Your task to perform on an android device: Search for energizer triple a on ebay.com, select the first entry, and add it to the cart. Image 0: 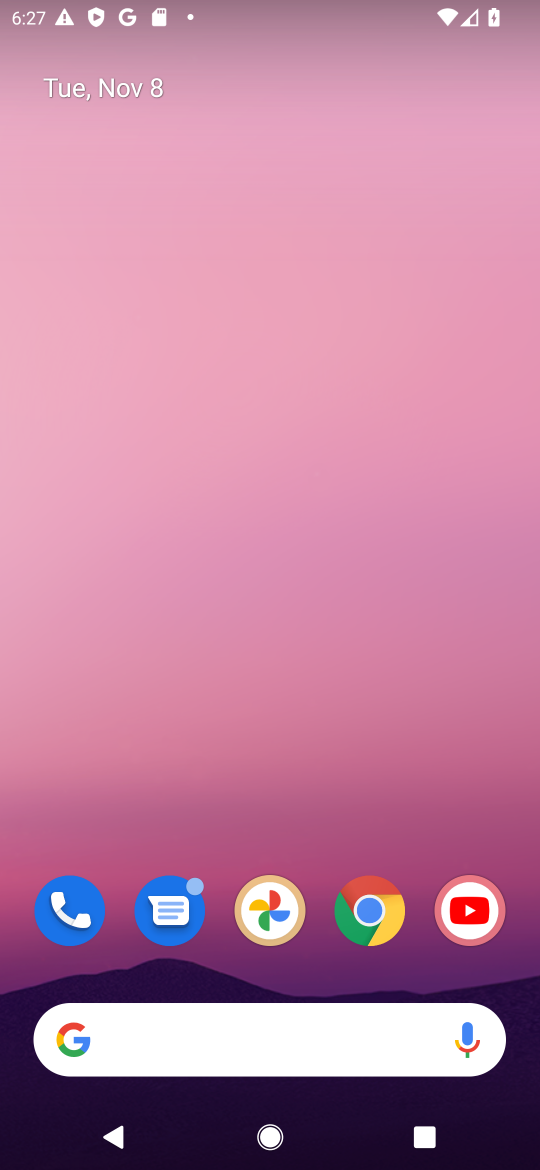
Step 0: click (379, 916)
Your task to perform on an android device: Search for energizer triple a on ebay.com, select the first entry, and add it to the cart. Image 1: 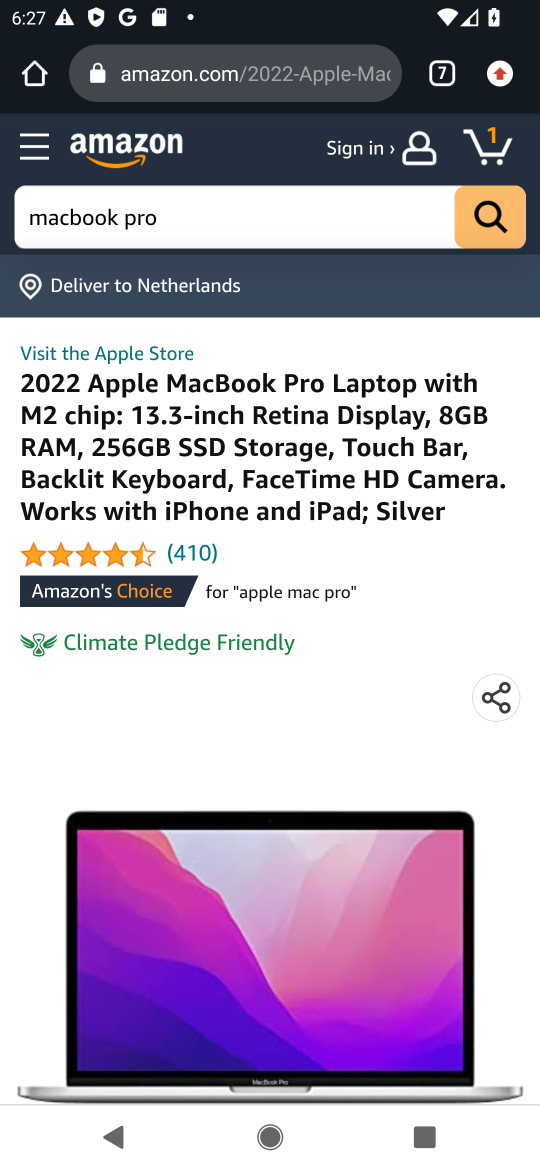
Step 1: click (451, 76)
Your task to perform on an android device: Search for energizer triple a on ebay.com, select the first entry, and add it to the cart. Image 2: 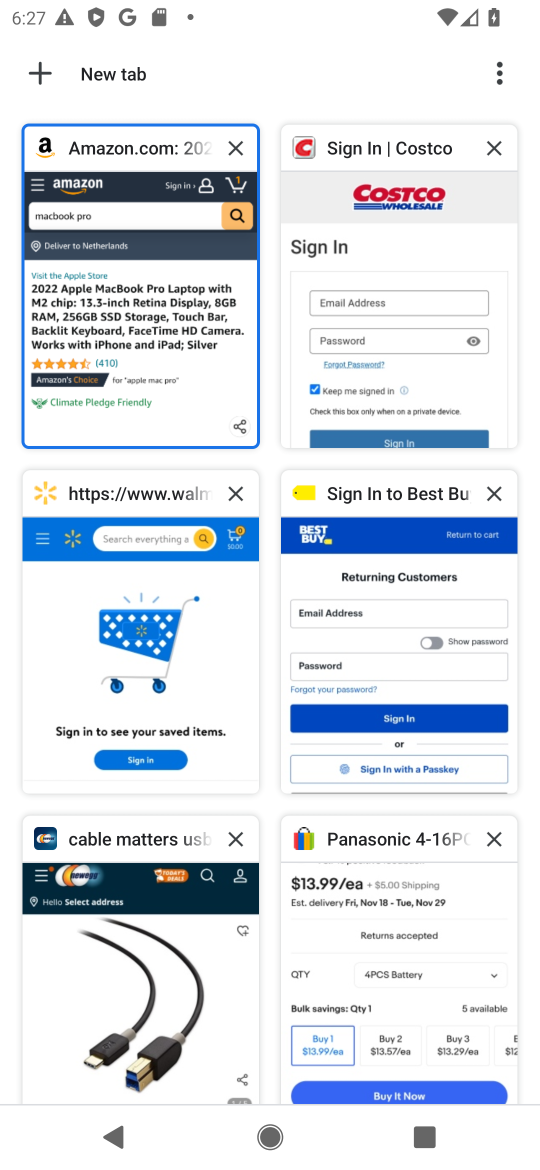
Step 2: click (389, 909)
Your task to perform on an android device: Search for energizer triple a on ebay.com, select the first entry, and add it to the cart. Image 3: 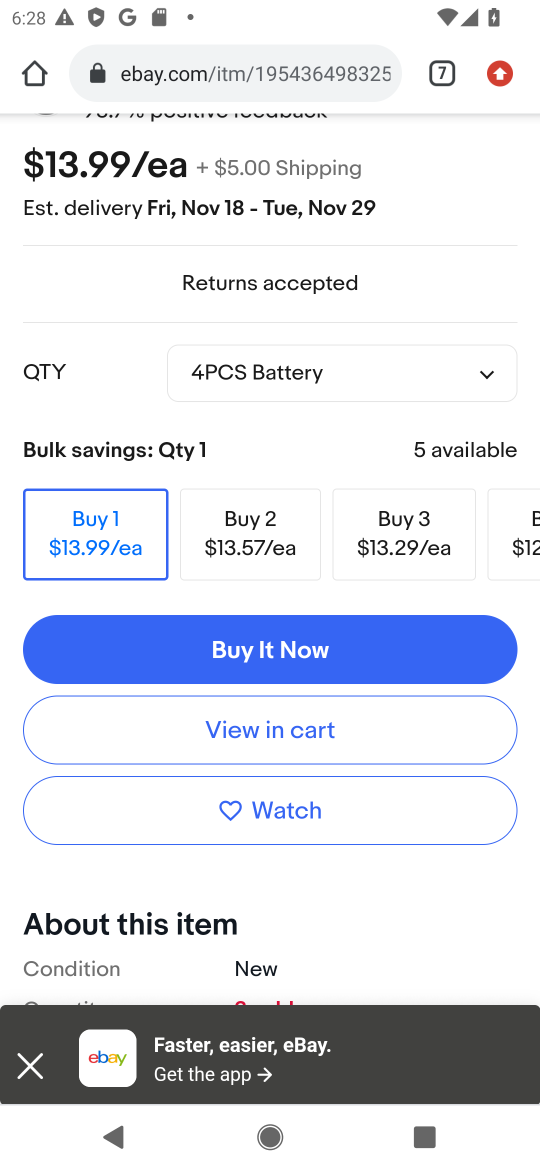
Step 3: drag from (321, 151) to (202, 960)
Your task to perform on an android device: Search for energizer triple a on ebay.com, select the first entry, and add it to the cart. Image 4: 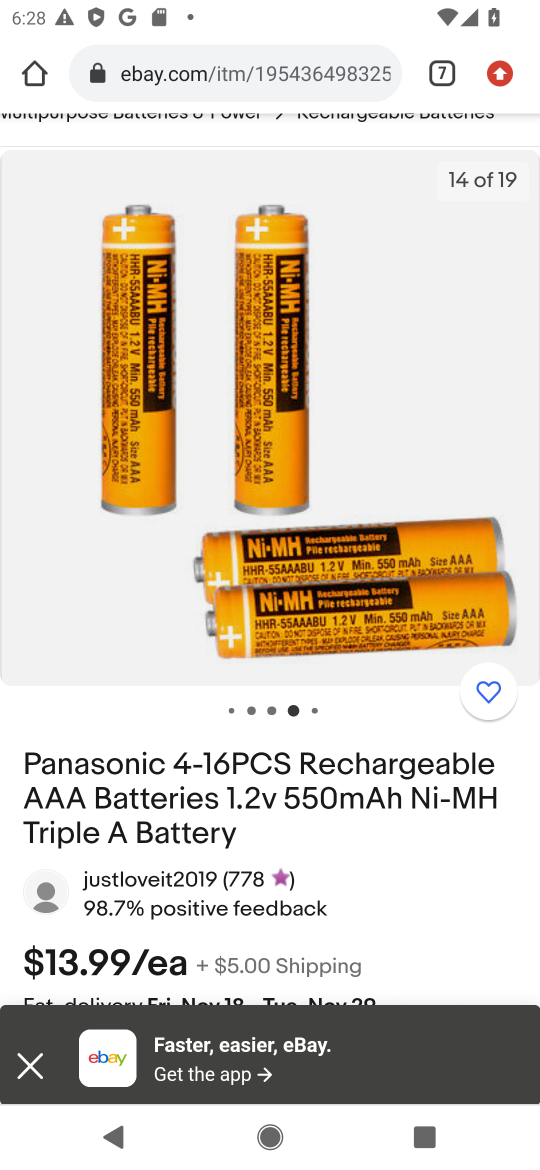
Step 4: drag from (427, 284) to (290, 766)
Your task to perform on an android device: Search for energizer triple a on ebay.com, select the first entry, and add it to the cart. Image 5: 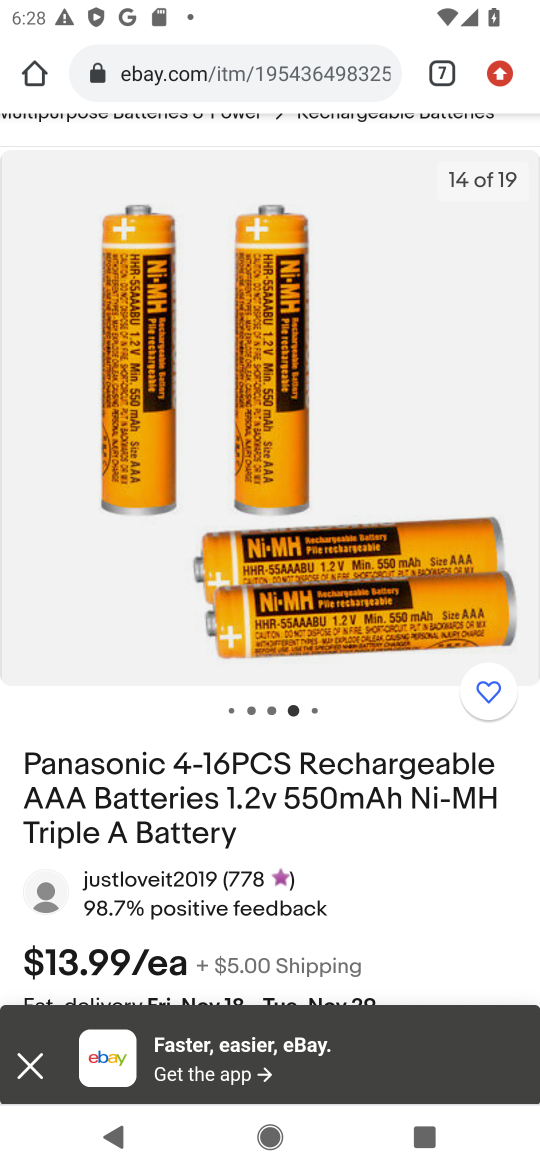
Step 5: drag from (301, 127) to (189, 602)
Your task to perform on an android device: Search for energizer triple a on ebay.com, select the first entry, and add it to the cart. Image 6: 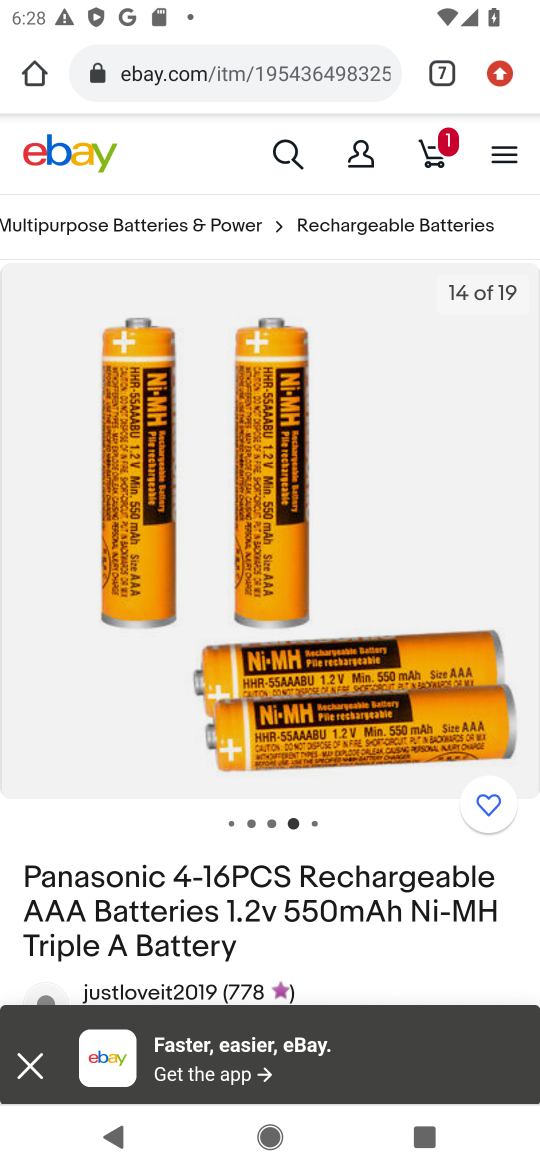
Step 6: click (288, 155)
Your task to perform on an android device: Search for energizer triple a on ebay.com, select the first entry, and add it to the cart. Image 7: 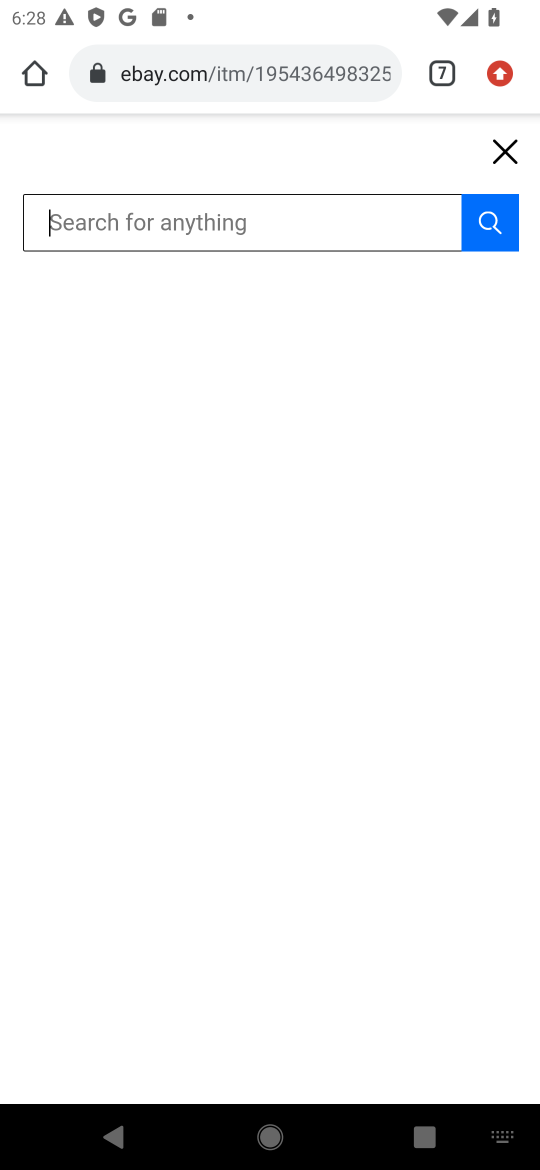
Step 7: type "energizer triple a battery"
Your task to perform on an android device: Search for energizer triple a on ebay.com, select the first entry, and add it to the cart. Image 8: 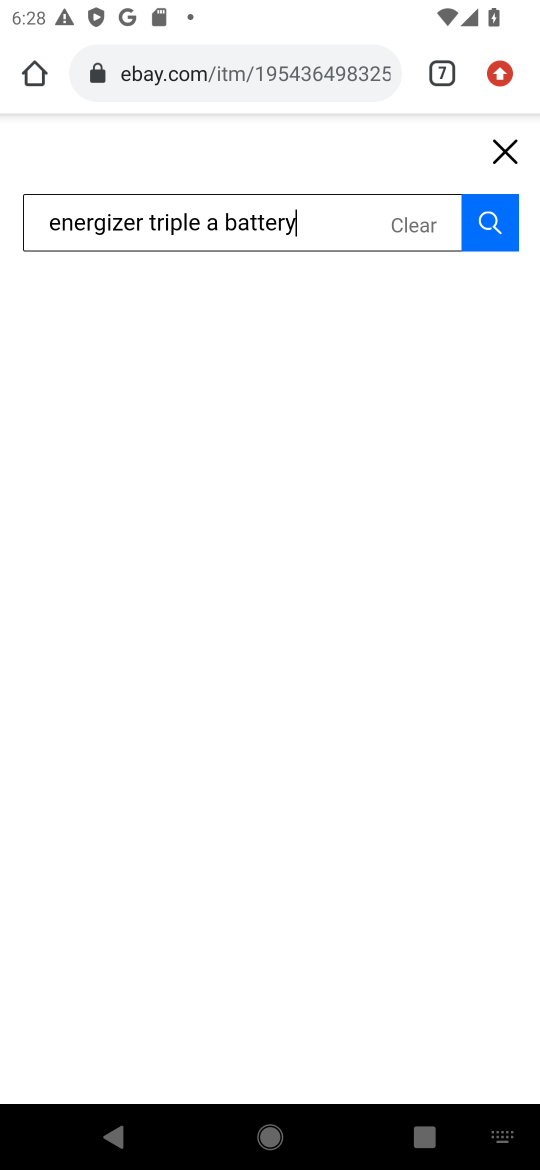
Step 8: click (494, 224)
Your task to perform on an android device: Search for energizer triple a on ebay.com, select the first entry, and add it to the cart. Image 9: 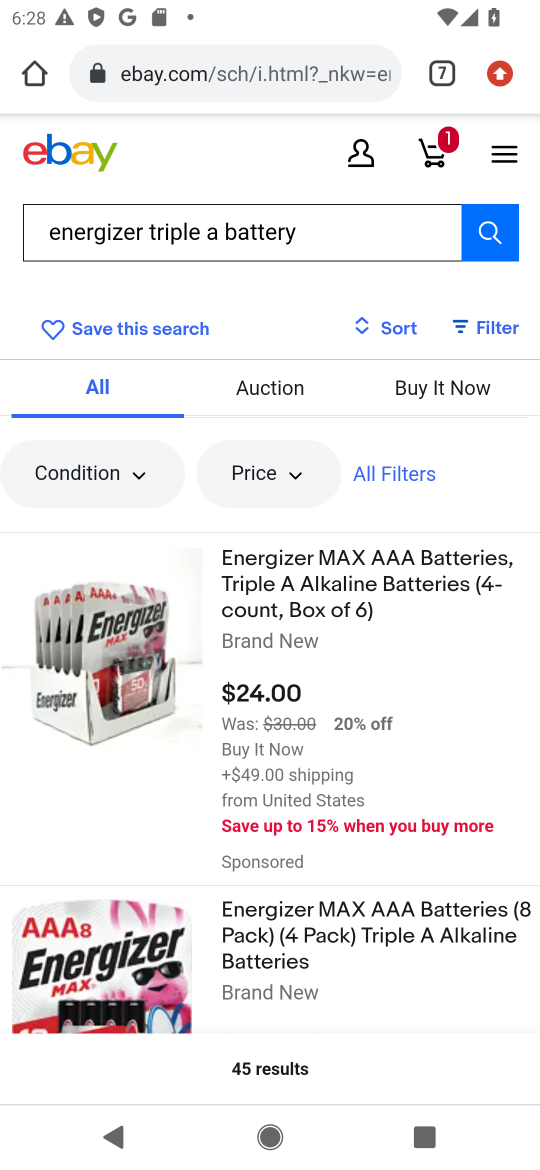
Step 9: click (250, 603)
Your task to perform on an android device: Search for energizer triple a on ebay.com, select the first entry, and add it to the cart. Image 10: 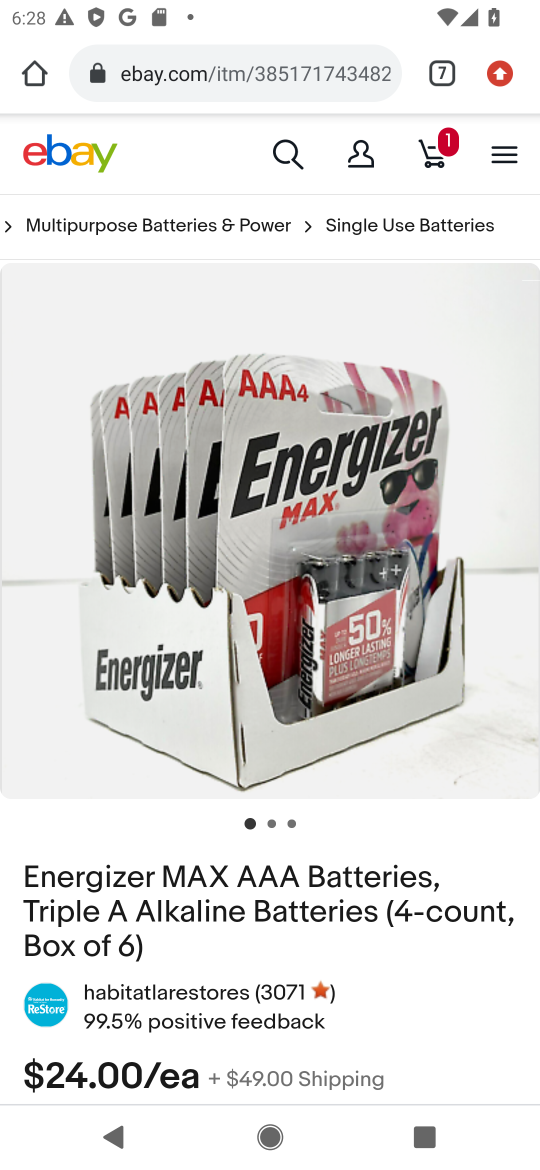
Step 10: drag from (250, 911) to (413, 340)
Your task to perform on an android device: Search for energizer triple a on ebay.com, select the first entry, and add it to the cart. Image 11: 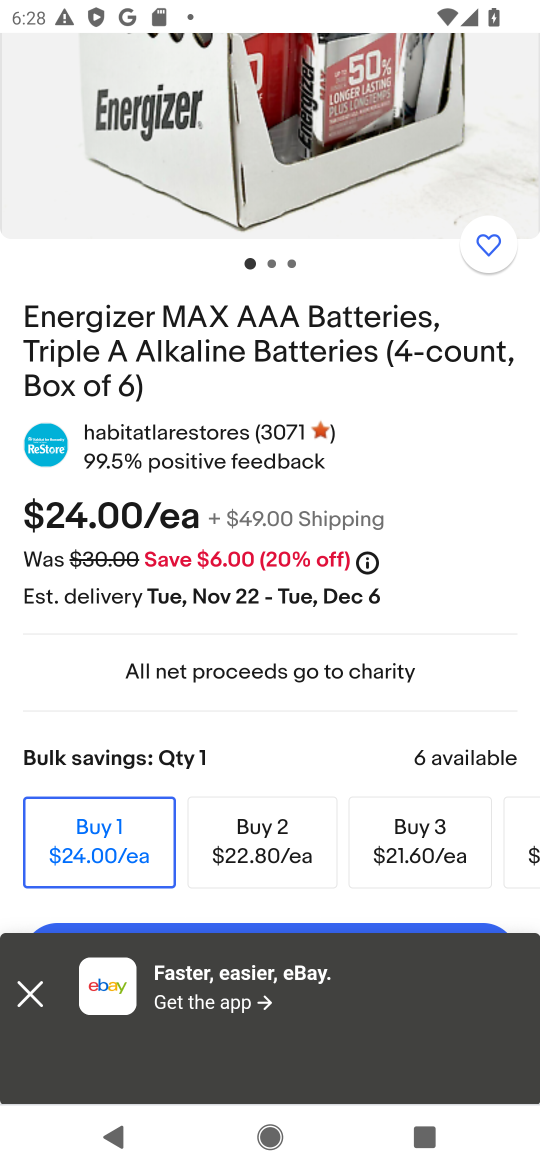
Step 11: drag from (320, 736) to (423, 308)
Your task to perform on an android device: Search for energizer triple a on ebay.com, select the first entry, and add it to the cart. Image 12: 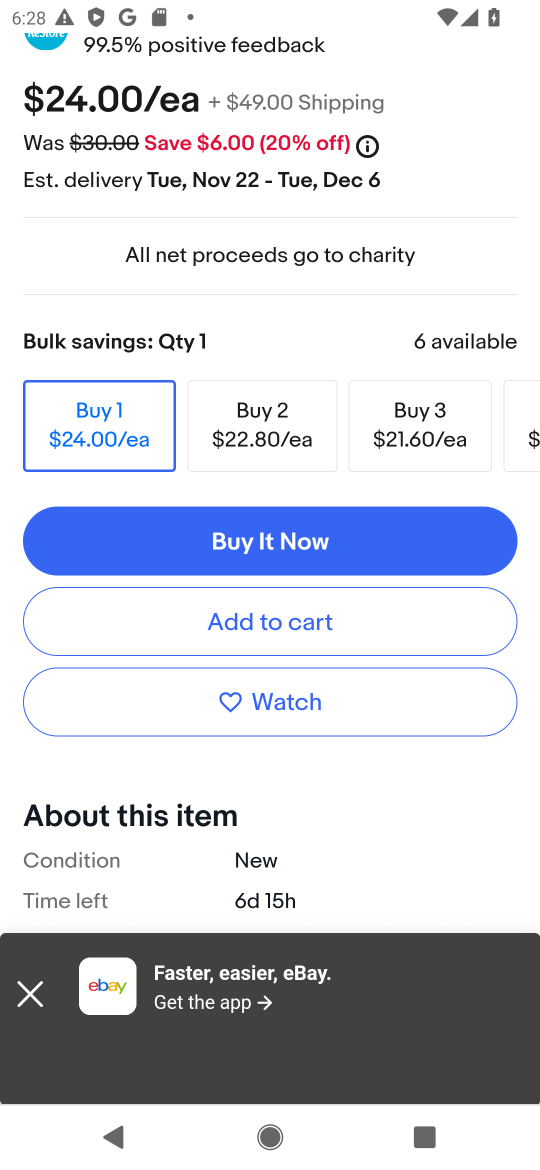
Step 12: click (267, 628)
Your task to perform on an android device: Search for energizer triple a on ebay.com, select the first entry, and add it to the cart. Image 13: 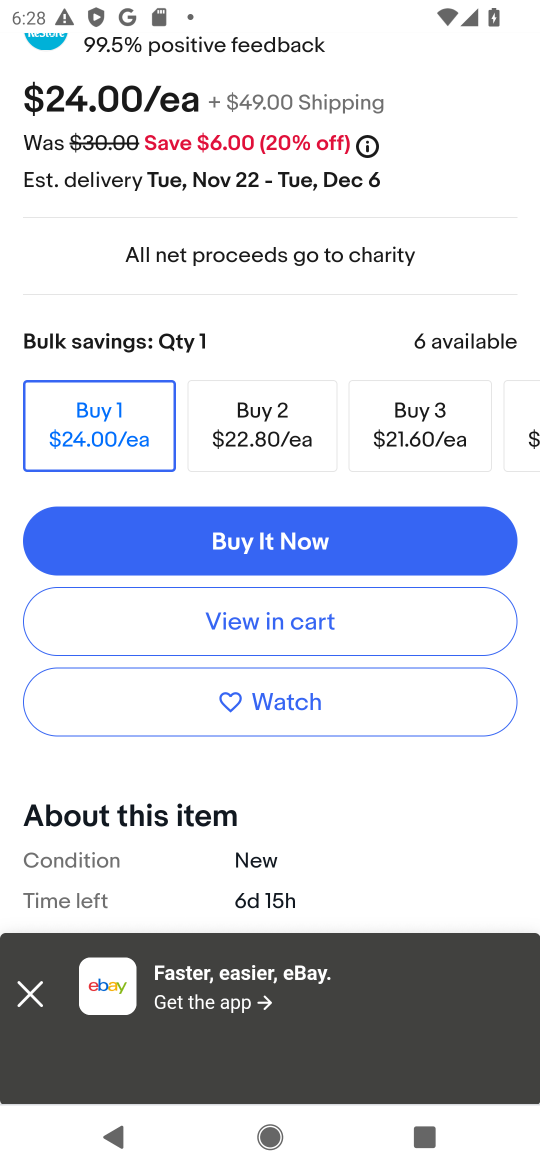
Step 13: task complete